Your task to perform on an android device: Show me popular videos on Youtube Image 0: 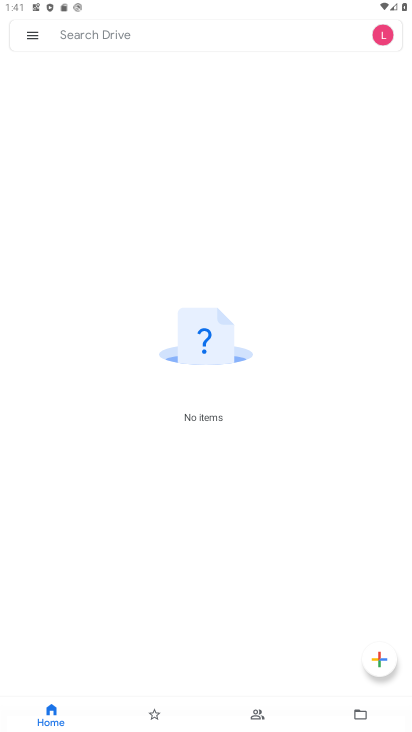
Step 0: press home button
Your task to perform on an android device: Show me popular videos on Youtube Image 1: 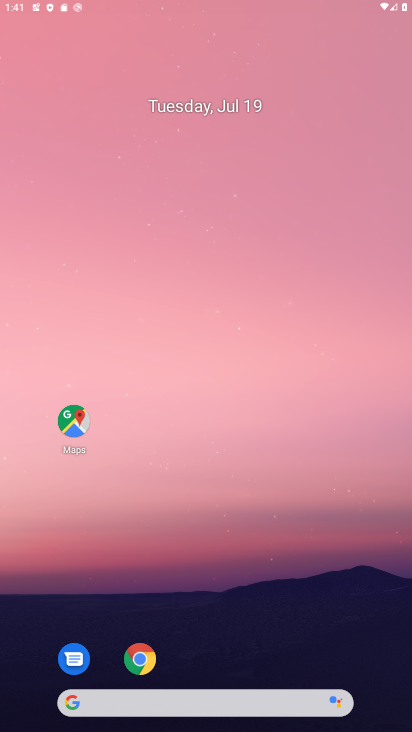
Step 1: drag from (246, 674) to (225, 439)
Your task to perform on an android device: Show me popular videos on Youtube Image 2: 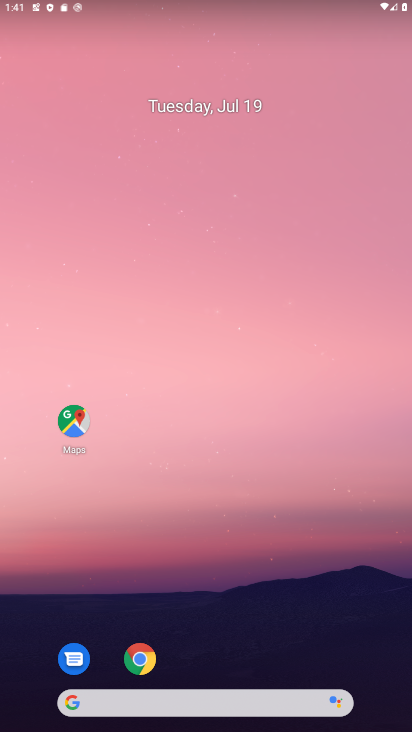
Step 2: drag from (309, 665) to (172, 6)
Your task to perform on an android device: Show me popular videos on Youtube Image 3: 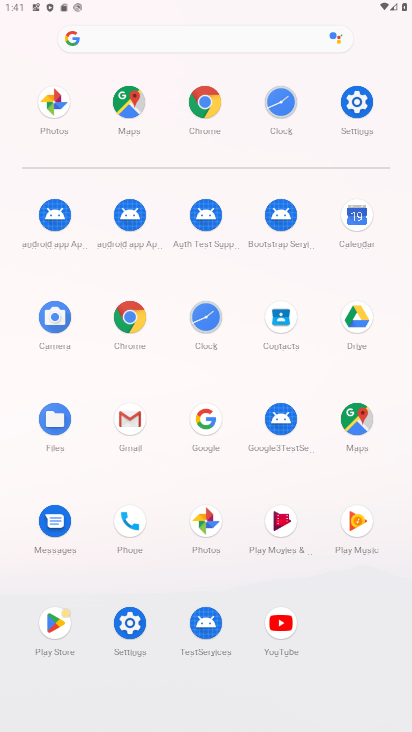
Step 3: click (279, 645)
Your task to perform on an android device: Show me popular videos on Youtube Image 4: 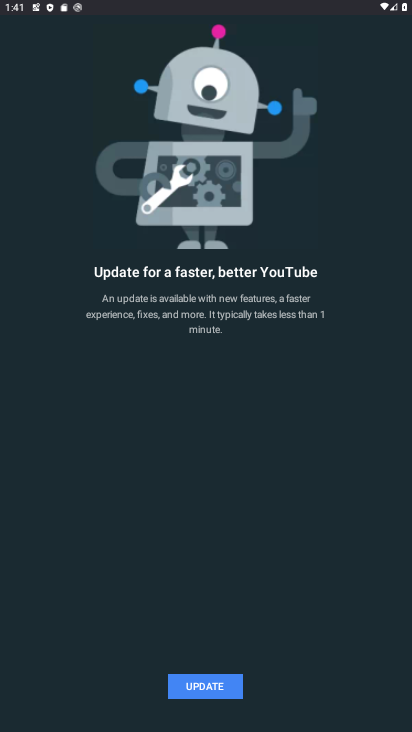
Step 4: click (209, 684)
Your task to perform on an android device: Show me popular videos on Youtube Image 5: 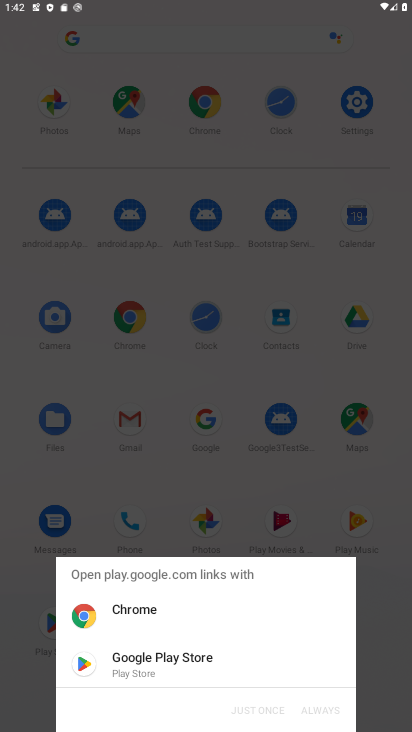
Step 5: click (196, 673)
Your task to perform on an android device: Show me popular videos on Youtube Image 6: 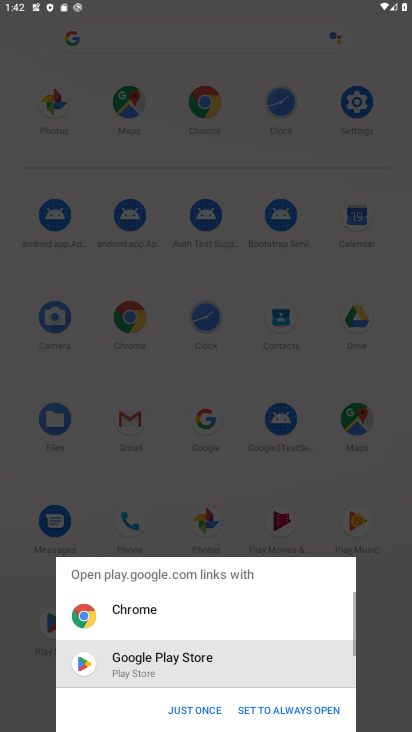
Step 6: click (196, 720)
Your task to perform on an android device: Show me popular videos on Youtube Image 7: 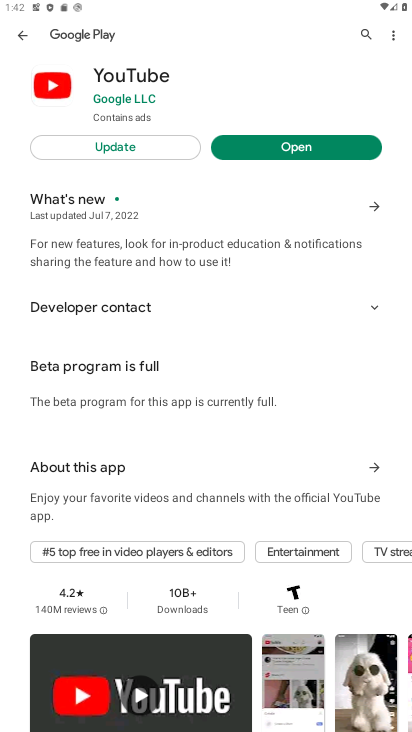
Step 7: click (157, 139)
Your task to perform on an android device: Show me popular videos on Youtube Image 8: 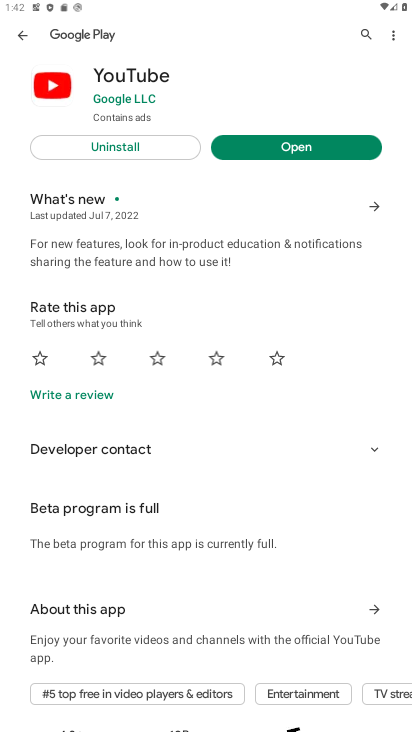
Step 8: click (266, 149)
Your task to perform on an android device: Show me popular videos on Youtube Image 9: 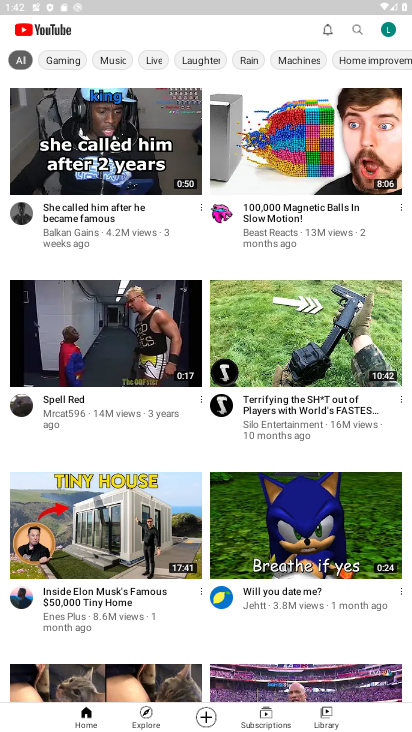
Step 9: click (356, 33)
Your task to perform on an android device: Show me popular videos on Youtube Image 10: 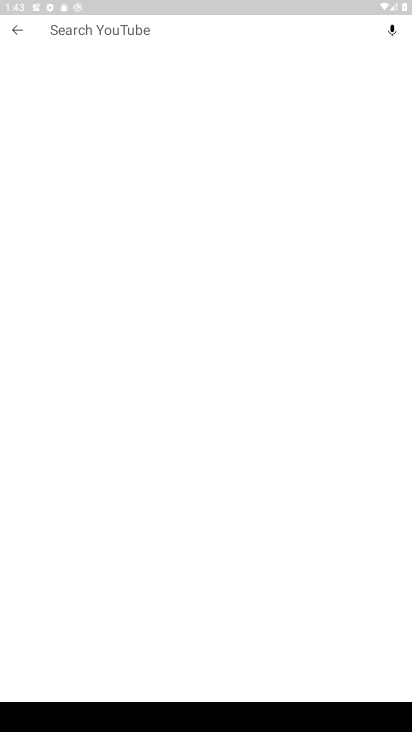
Step 10: type " popular videos on Youtube"
Your task to perform on an android device: Show me popular videos on Youtube Image 11: 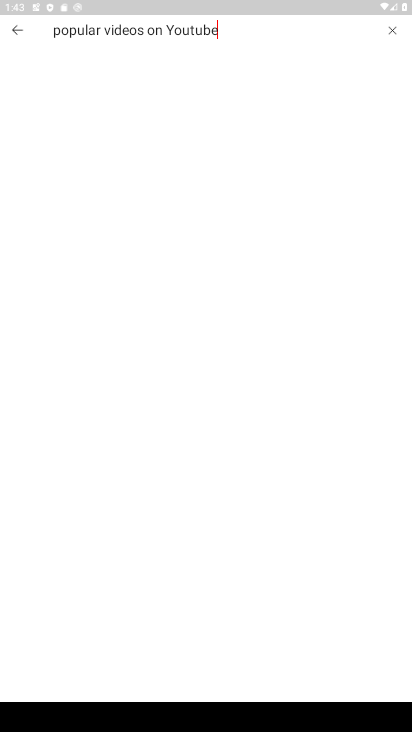
Step 11: type ""
Your task to perform on an android device: Show me popular videos on Youtube Image 12: 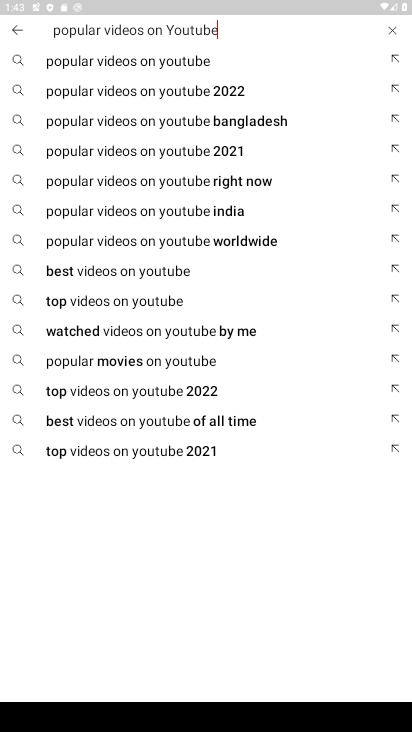
Step 12: click (195, 65)
Your task to perform on an android device: Show me popular videos on Youtube Image 13: 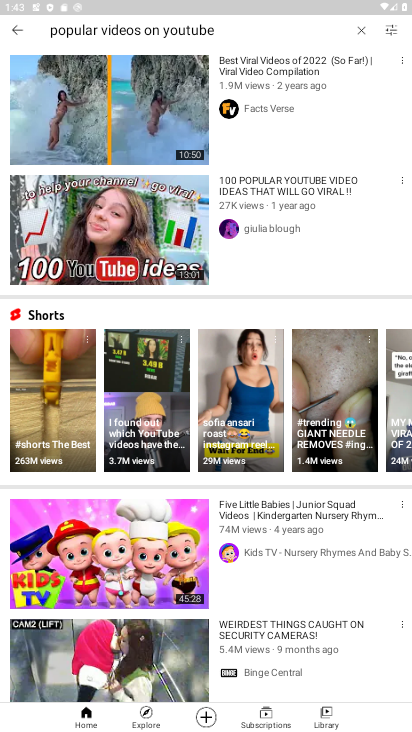
Step 13: task complete